Your task to perform on an android device: turn vacation reply on in the gmail app Image 0: 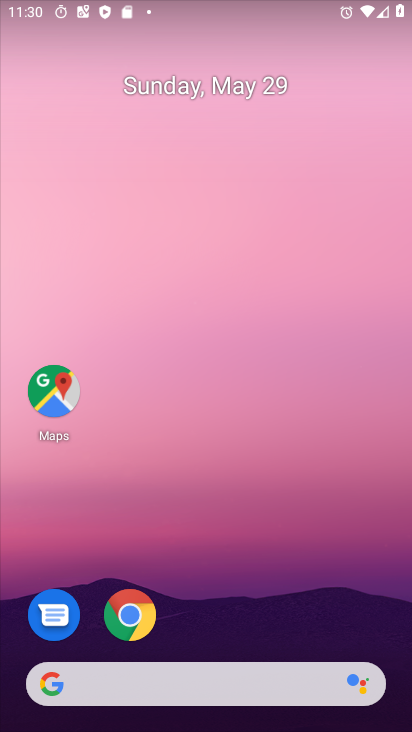
Step 0: drag from (221, 596) to (204, 71)
Your task to perform on an android device: turn vacation reply on in the gmail app Image 1: 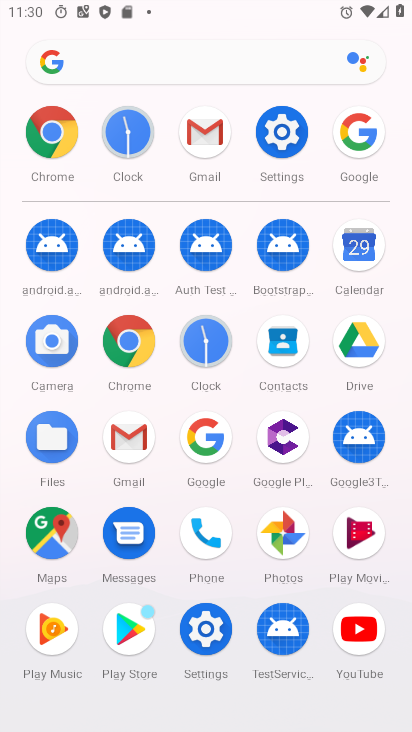
Step 1: click (212, 152)
Your task to perform on an android device: turn vacation reply on in the gmail app Image 2: 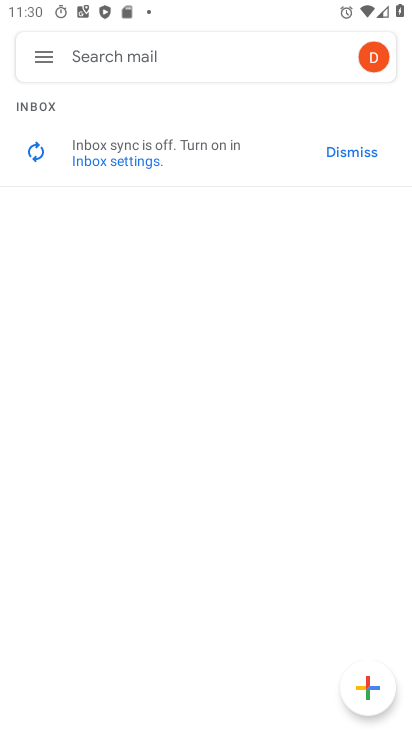
Step 2: click (56, 61)
Your task to perform on an android device: turn vacation reply on in the gmail app Image 3: 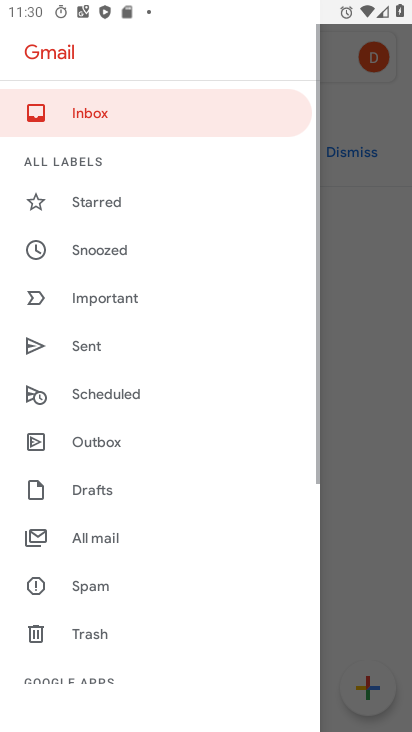
Step 3: drag from (117, 626) to (129, 96)
Your task to perform on an android device: turn vacation reply on in the gmail app Image 4: 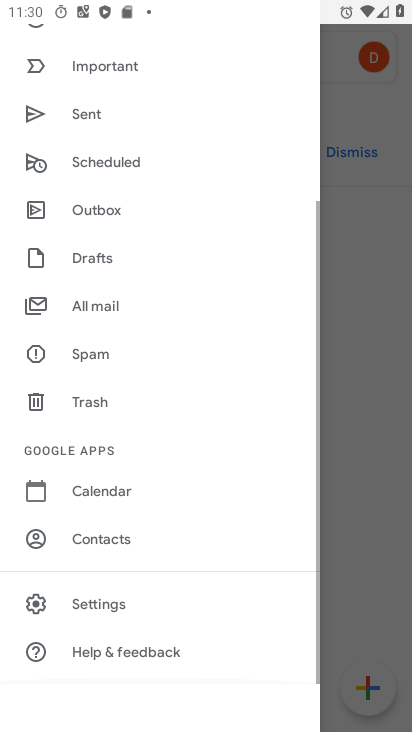
Step 4: click (96, 606)
Your task to perform on an android device: turn vacation reply on in the gmail app Image 5: 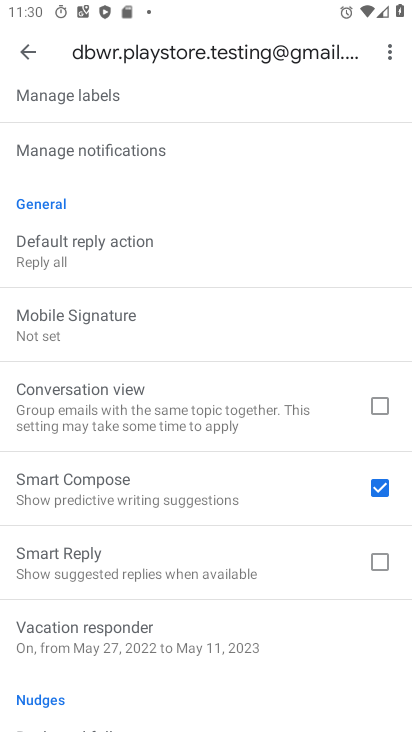
Step 5: click (107, 635)
Your task to perform on an android device: turn vacation reply on in the gmail app Image 6: 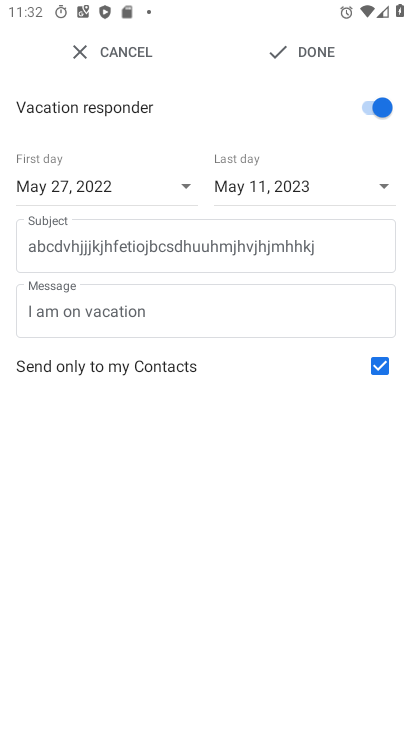
Step 6: task complete